Your task to perform on an android device: empty trash in google photos Image 0: 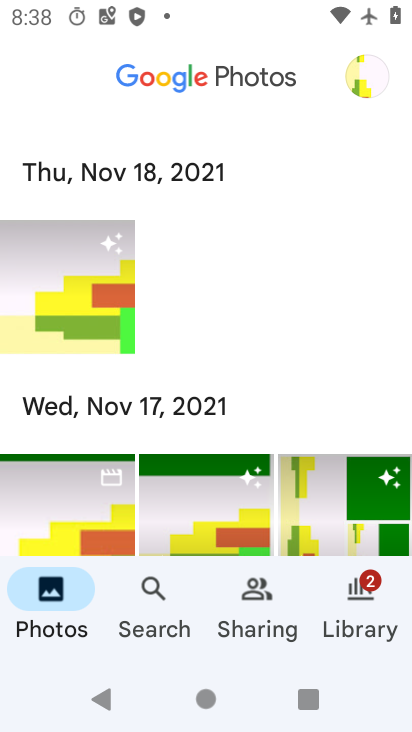
Step 0: press home button
Your task to perform on an android device: empty trash in google photos Image 1: 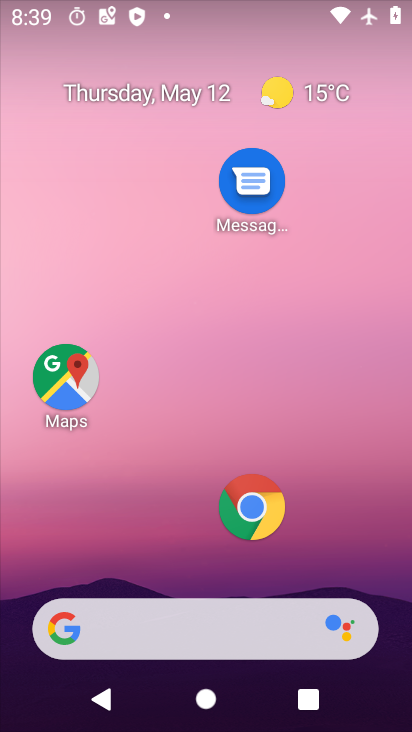
Step 1: drag from (300, 564) to (337, 49)
Your task to perform on an android device: empty trash in google photos Image 2: 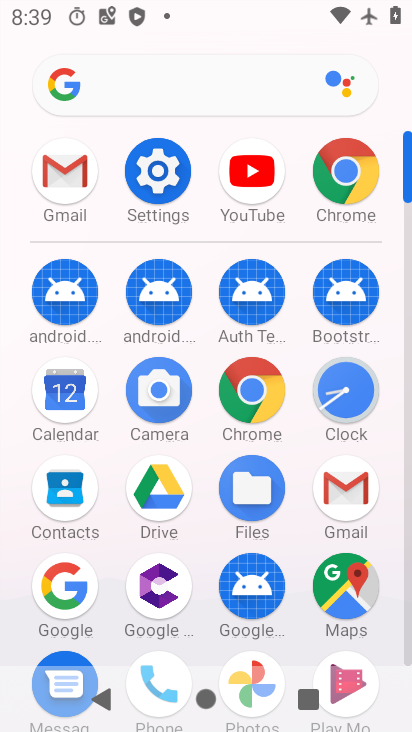
Step 2: drag from (202, 549) to (217, 299)
Your task to perform on an android device: empty trash in google photos Image 3: 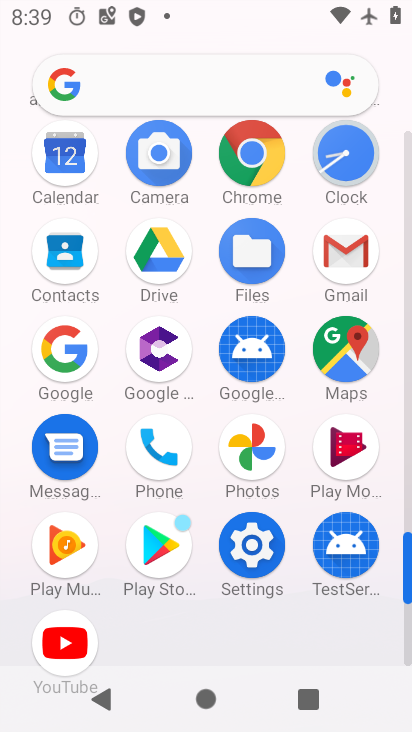
Step 3: click (241, 464)
Your task to perform on an android device: empty trash in google photos Image 4: 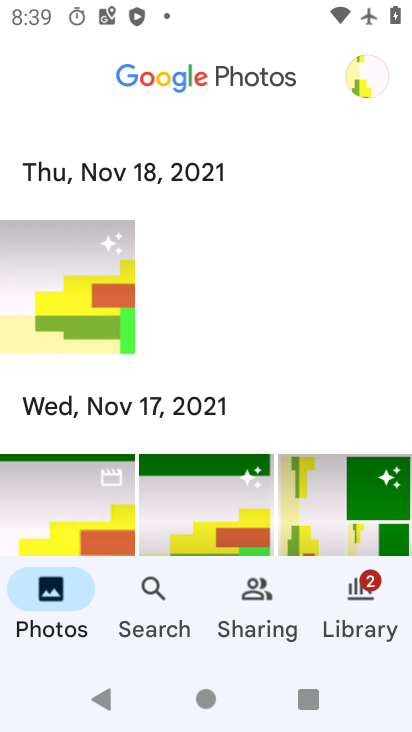
Step 4: click (356, 611)
Your task to perform on an android device: empty trash in google photos Image 5: 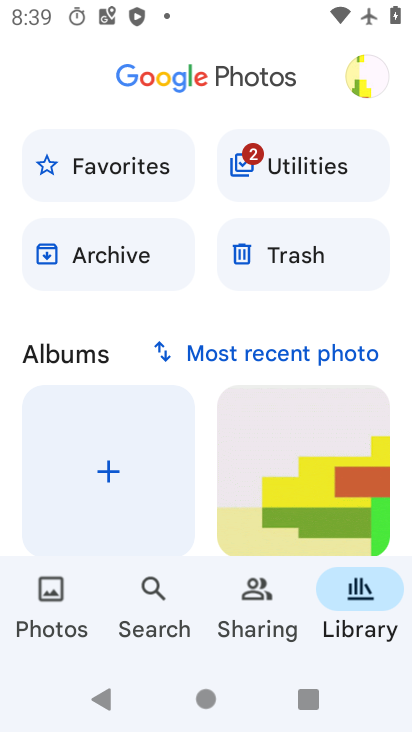
Step 5: click (260, 255)
Your task to perform on an android device: empty trash in google photos Image 6: 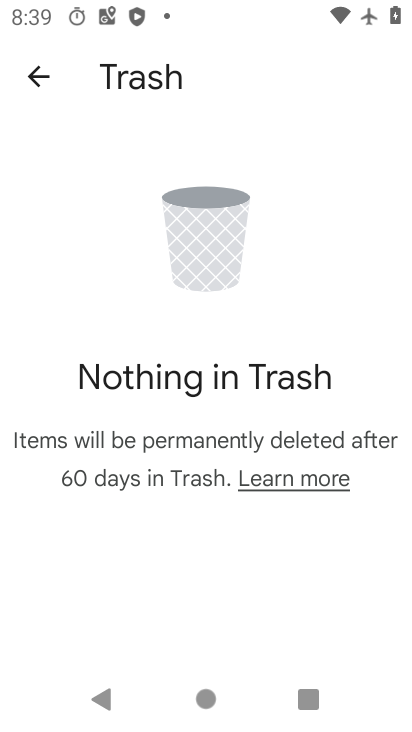
Step 6: task complete